Your task to perform on an android device: Search for Italian restaurants on Maps Image 0: 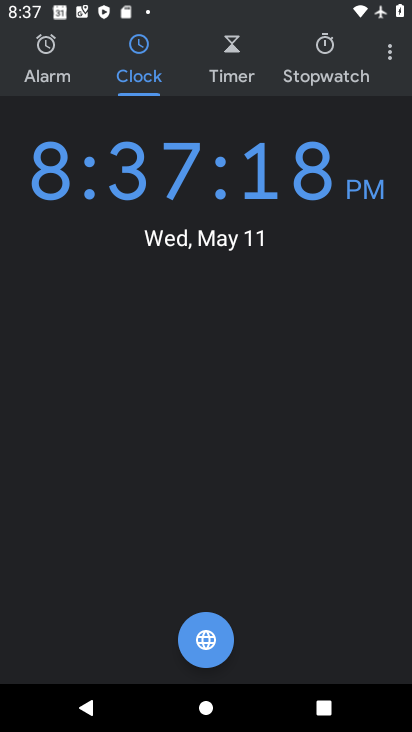
Step 0: press home button
Your task to perform on an android device: Search for Italian restaurants on Maps Image 1: 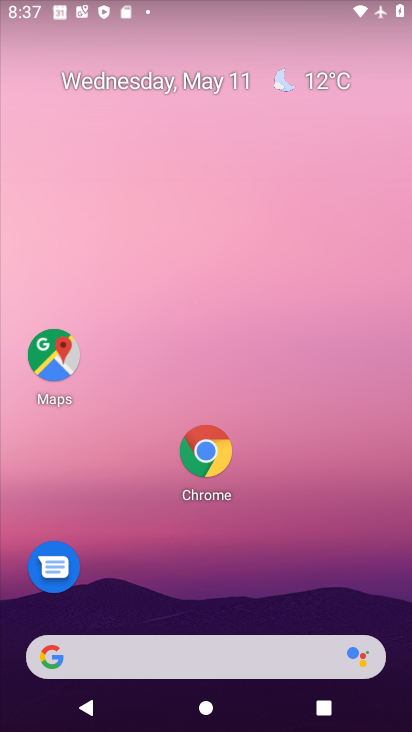
Step 1: click (68, 360)
Your task to perform on an android device: Search for Italian restaurants on Maps Image 2: 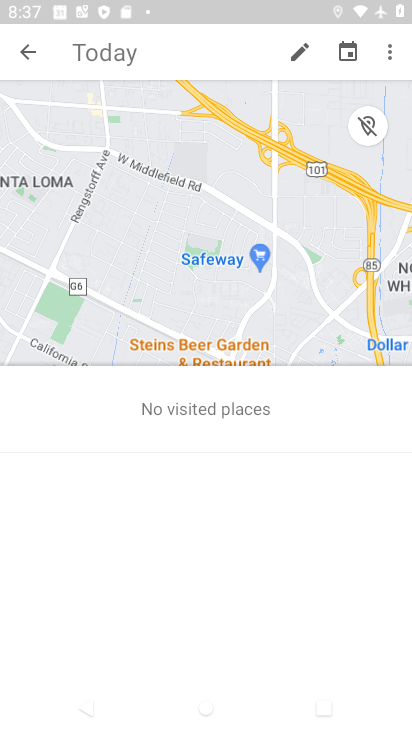
Step 2: click (32, 47)
Your task to perform on an android device: Search for Italian restaurants on Maps Image 3: 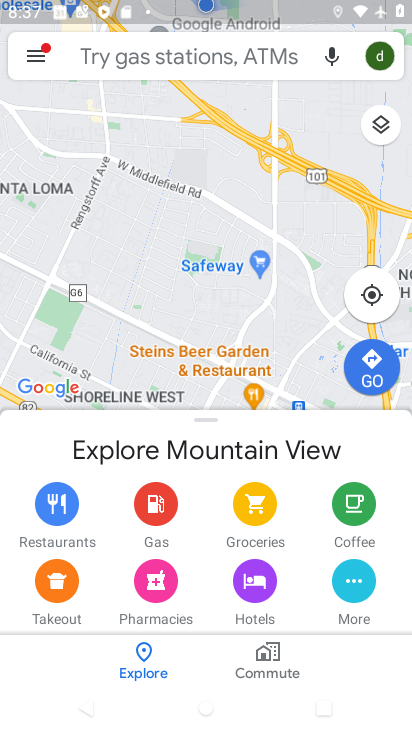
Step 3: click (161, 57)
Your task to perform on an android device: Search for Italian restaurants on Maps Image 4: 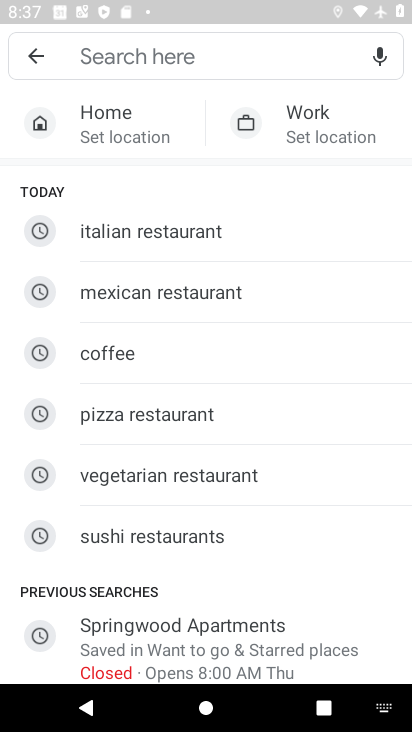
Step 4: click (197, 228)
Your task to perform on an android device: Search for Italian restaurants on Maps Image 5: 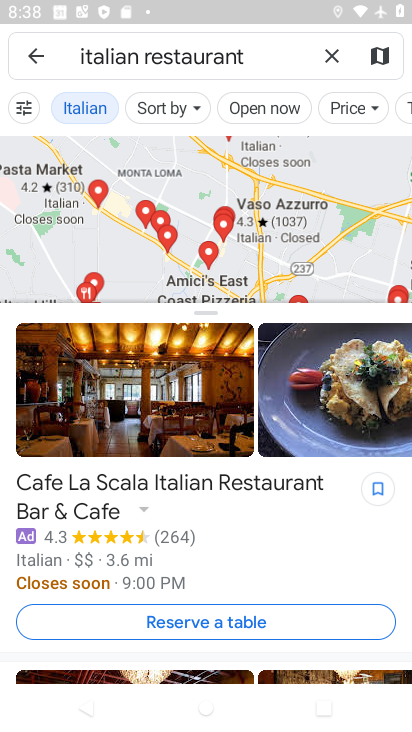
Step 5: task complete